Your task to perform on an android device: Search for vegetarian restaurants on Maps Image 0: 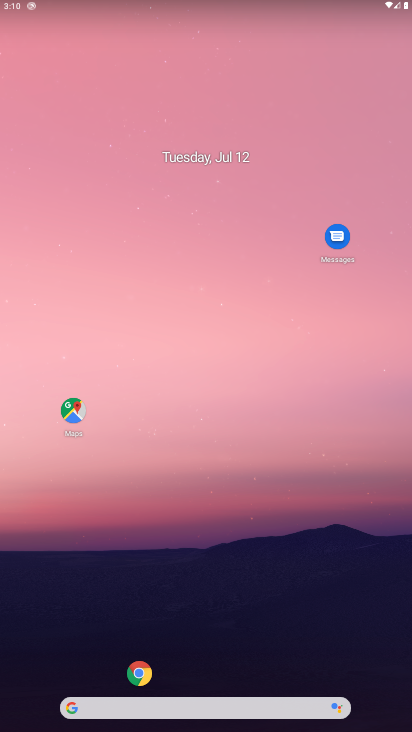
Step 0: click (65, 396)
Your task to perform on an android device: Search for vegetarian restaurants on Maps Image 1: 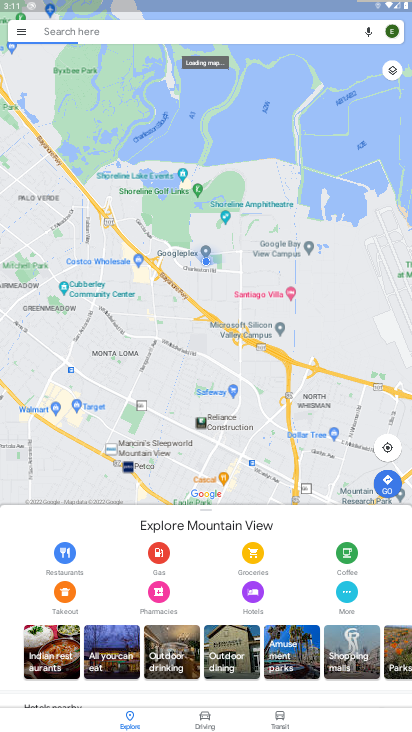
Step 1: click (57, 26)
Your task to perform on an android device: Search for vegetarian restaurants on Maps Image 2: 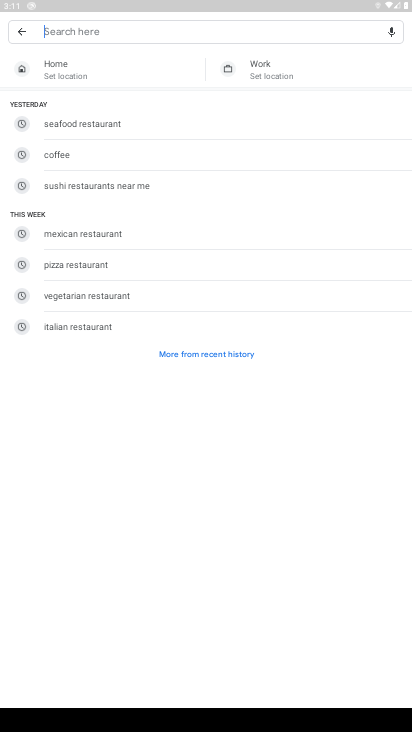
Step 2: click (88, 297)
Your task to perform on an android device: Search for vegetarian restaurants on Maps Image 3: 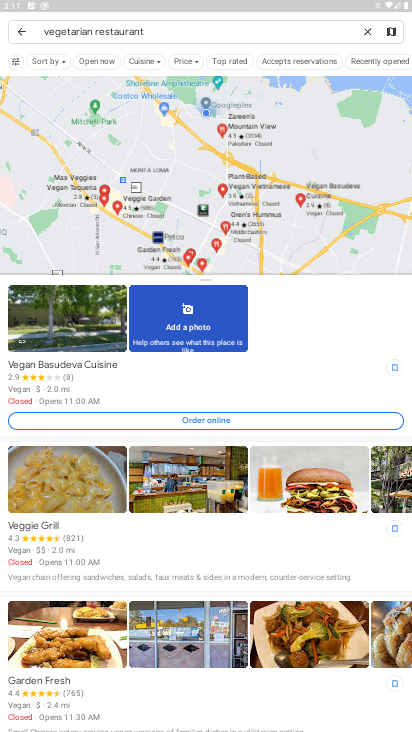
Step 3: task complete